Your task to perform on an android device: Find coffee shops on Maps Image 0: 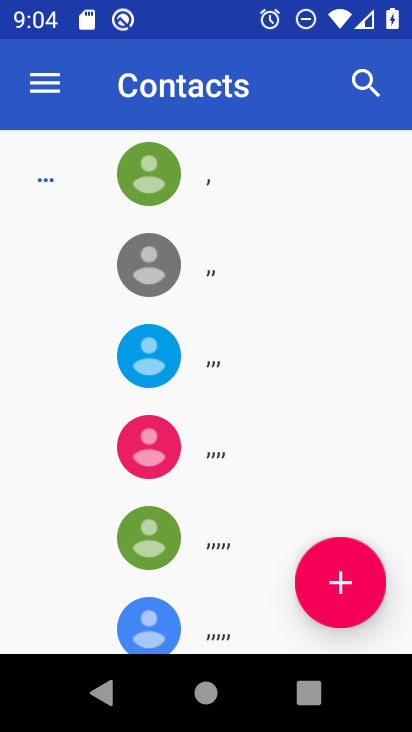
Step 0: press home button
Your task to perform on an android device: Find coffee shops on Maps Image 1: 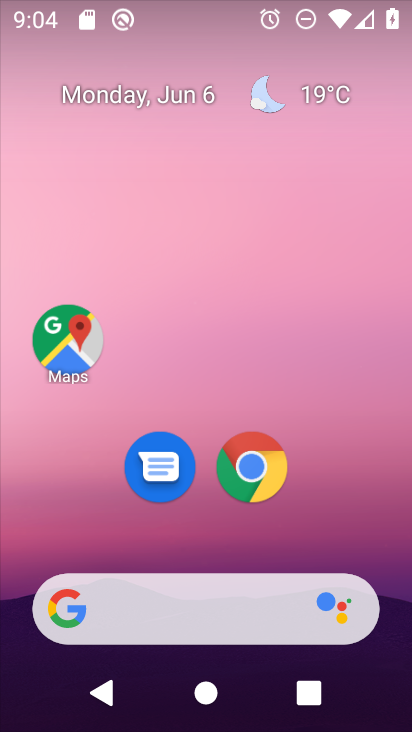
Step 1: drag from (351, 549) to (366, 121)
Your task to perform on an android device: Find coffee shops on Maps Image 2: 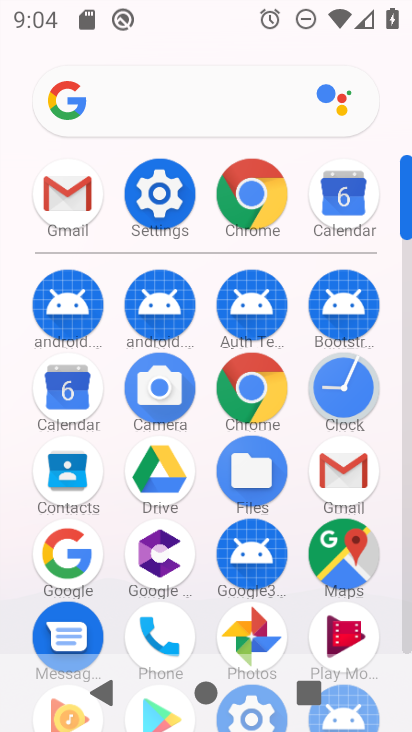
Step 2: click (346, 554)
Your task to perform on an android device: Find coffee shops on Maps Image 3: 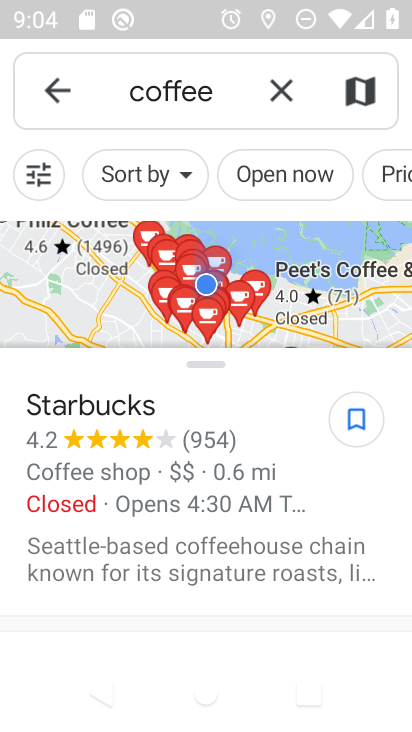
Step 3: task complete